Your task to perform on an android device: toggle sleep mode Image 0: 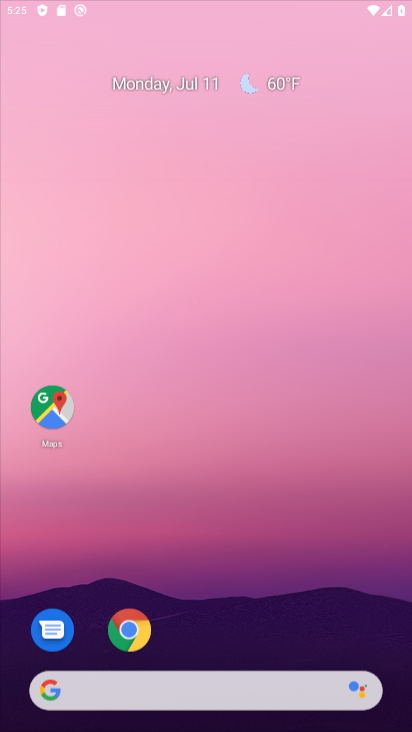
Step 0: press home button
Your task to perform on an android device: toggle sleep mode Image 1: 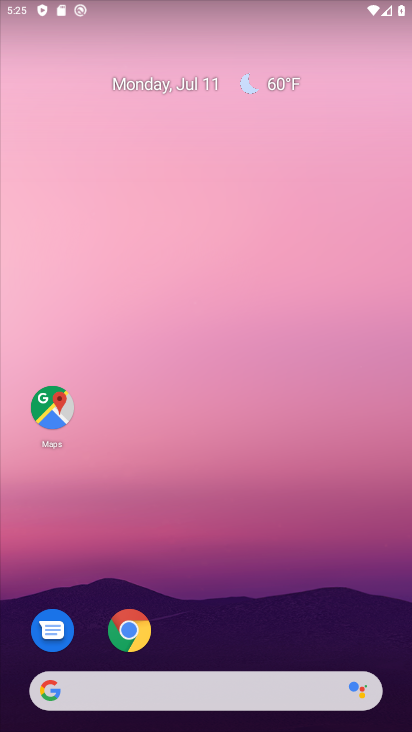
Step 1: click (125, 635)
Your task to perform on an android device: toggle sleep mode Image 2: 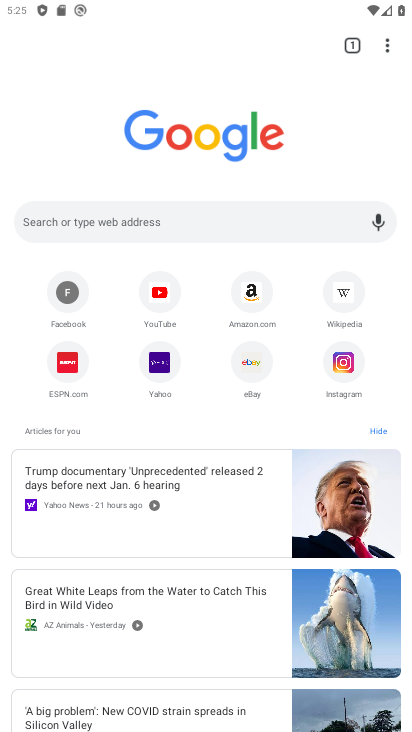
Step 2: press home button
Your task to perform on an android device: toggle sleep mode Image 3: 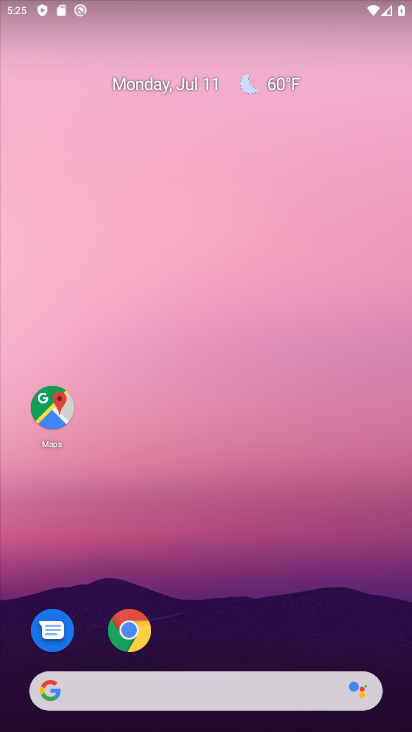
Step 3: drag from (150, 265) to (141, 99)
Your task to perform on an android device: toggle sleep mode Image 4: 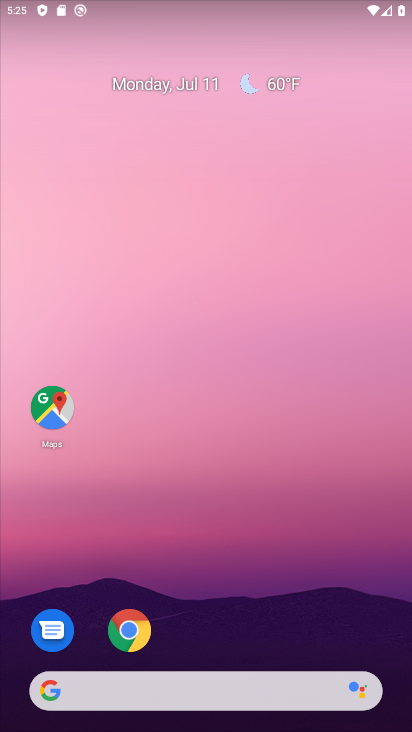
Step 4: drag from (205, 630) to (171, 132)
Your task to perform on an android device: toggle sleep mode Image 5: 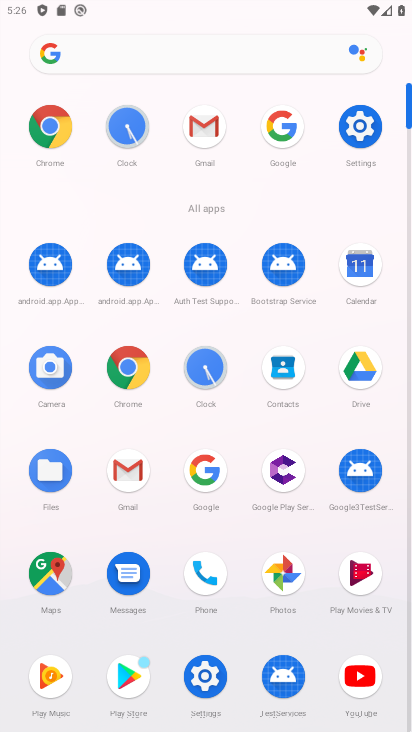
Step 5: click (353, 135)
Your task to perform on an android device: toggle sleep mode Image 6: 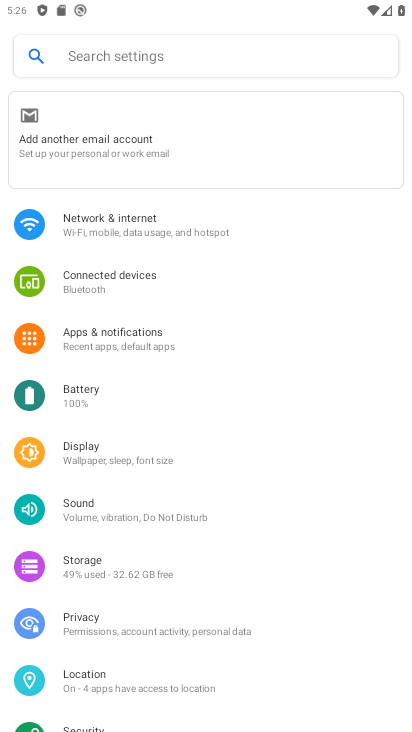
Step 6: task complete